Your task to perform on an android device: Go to Wikipedia Image 0: 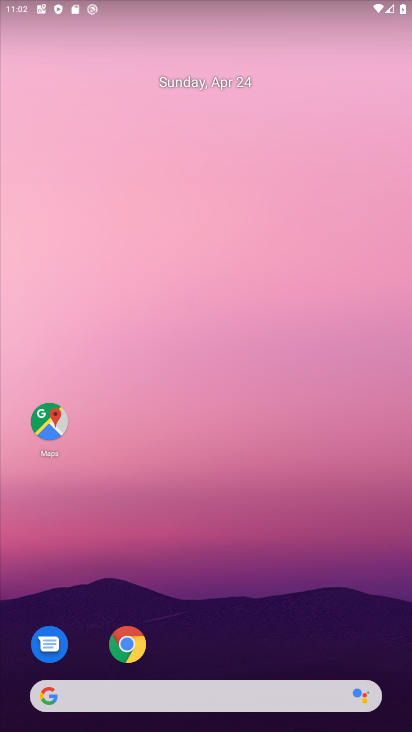
Step 0: click (125, 641)
Your task to perform on an android device: Go to Wikipedia Image 1: 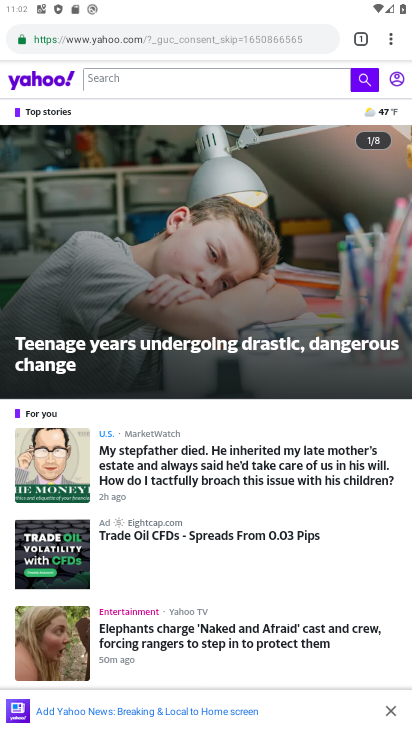
Step 1: click (109, 36)
Your task to perform on an android device: Go to Wikipedia Image 2: 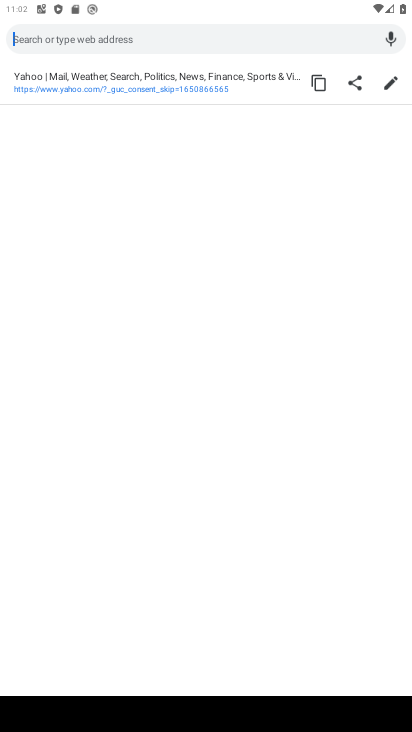
Step 2: type "wikipedia"
Your task to perform on an android device: Go to Wikipedia Image 3: 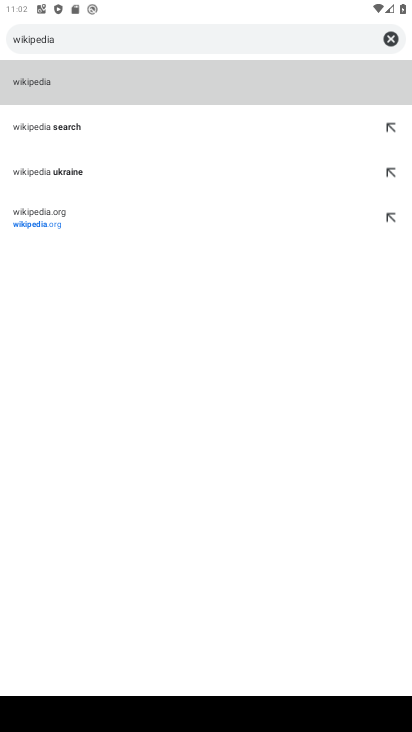
Step 3: click (39, 89)
Your task to perform on an android device: Go to Wikipedia Image 4: 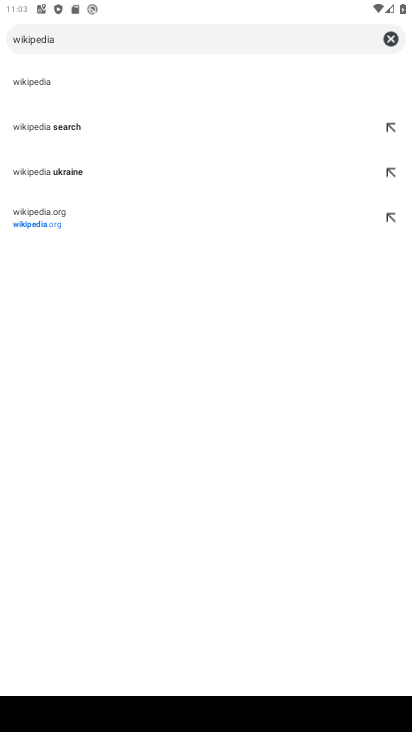
Step 4: click (27, 83)
Your task to perform on an android device: Go to Wikipedia Image 5: 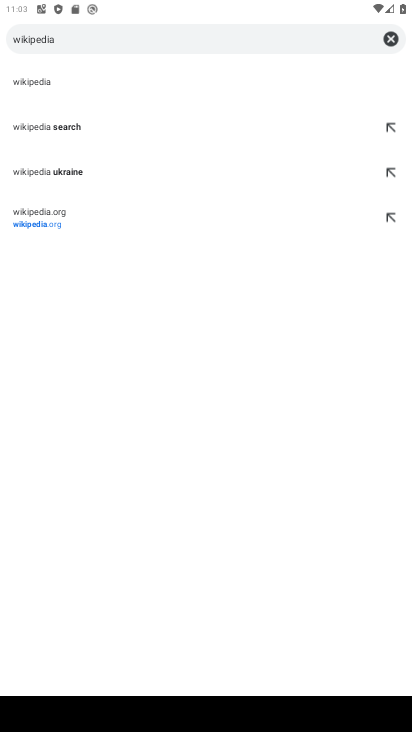
Step 5: click (25, 81)
Your task to perform on an android device: Go to Wikipedia Image 6: 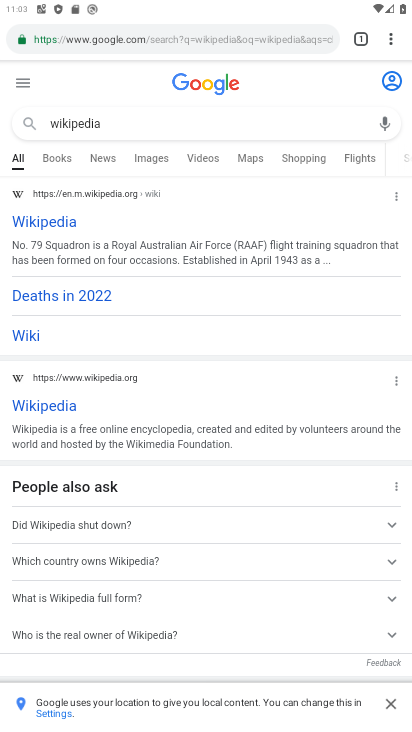
Step 6: click (30, 221)
Your task to perform on an android device: Go to Wikipedia Image 7: 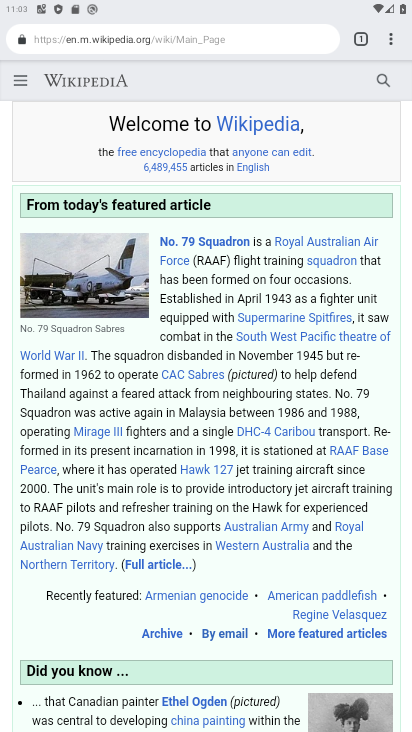
Step 7: task complete